Your task to perform on an android device: turn off javascript in the chrome app Image 0: 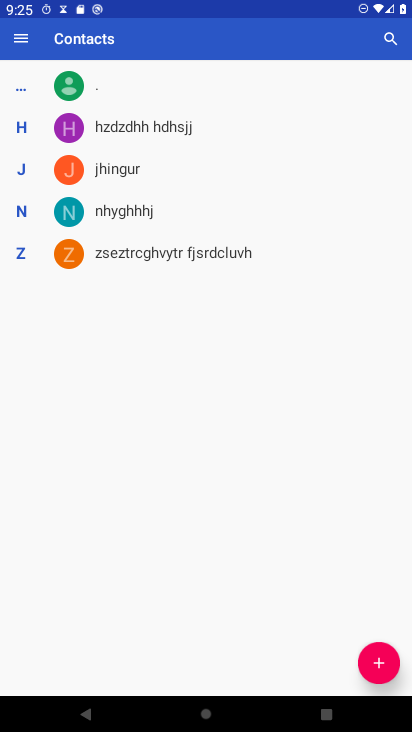
Step 0: press back button
Your task to perform on an android device: turn off javascript in the chrome app Image 1: 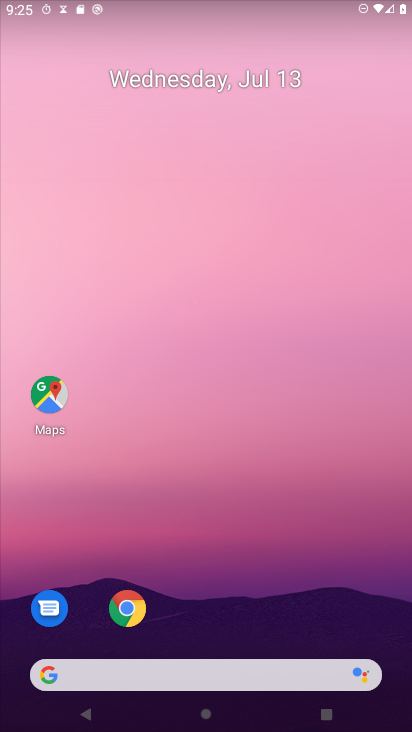
Step 1: drag from (238, 646) to (213, 262)
Your task to perform on an android device: turn off javascript in the chrome app Image 2: 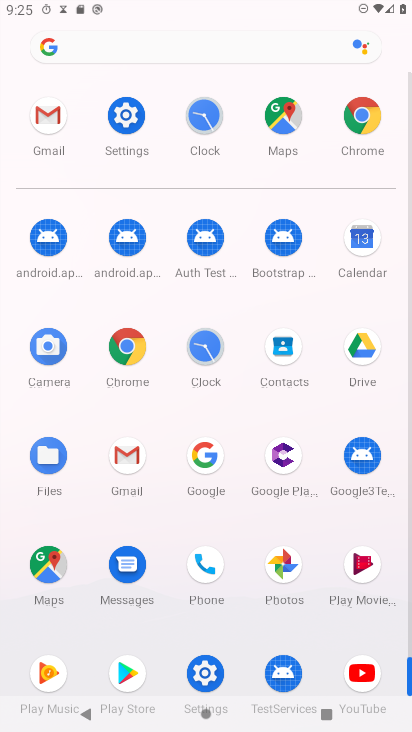
Step 2: click (364, 115)
Your task to perform on an android device: turn off javascript in the chrome app Image 3: 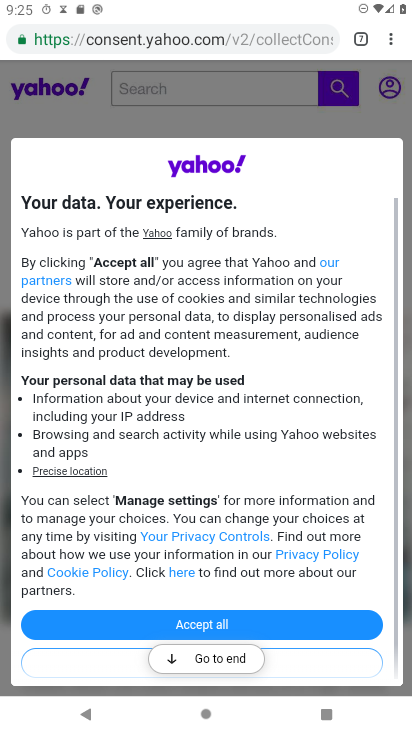
Step 3: drag from (386, 39) to (245, 476)
Your task to perform on an android device: turn off javascript in the chrome app Image 4: 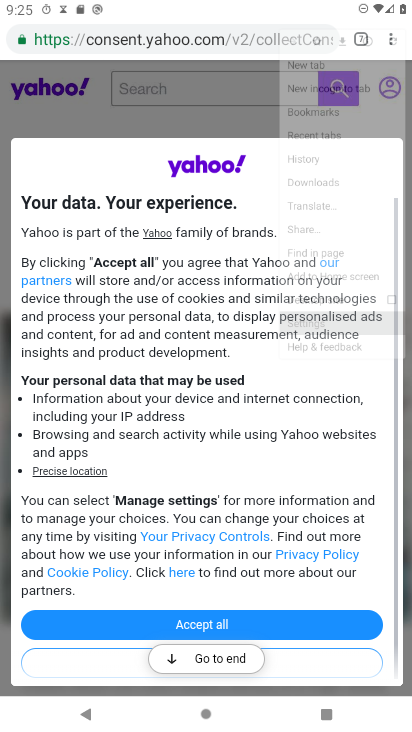
Step 4: click (246, 475)
Your task to perform on an android device: turn off javascript in the chrome app Image 5: 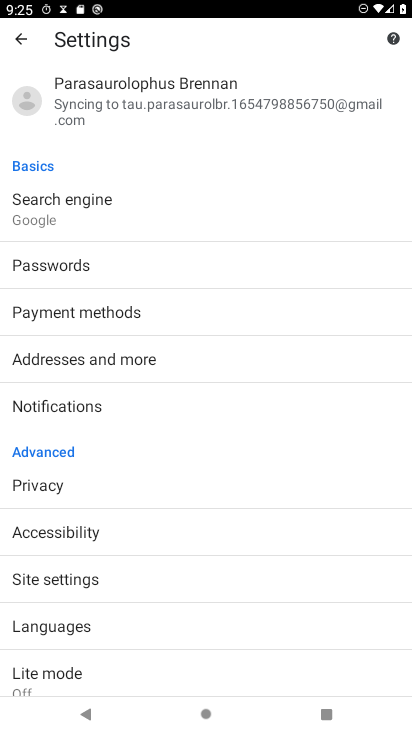
Step 5: click (137, 147)
Your task to perform on an android device: turn off javascript in the chrome app Image 6: 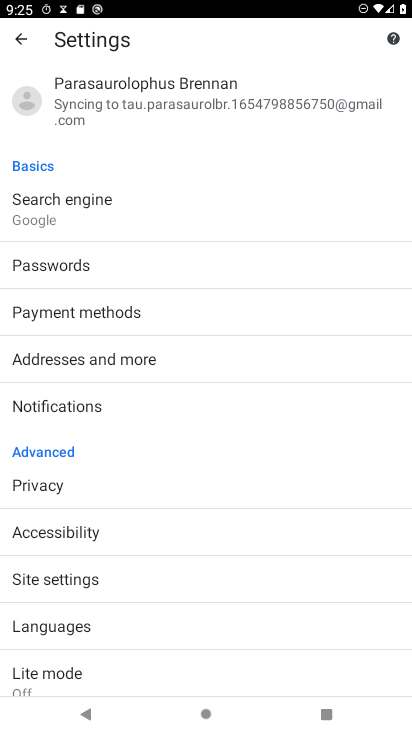
Step 6: drag from (203, 461) to (169, 206)
Your task to perform on an android device: turn off javascript in the chrome app Image 7: 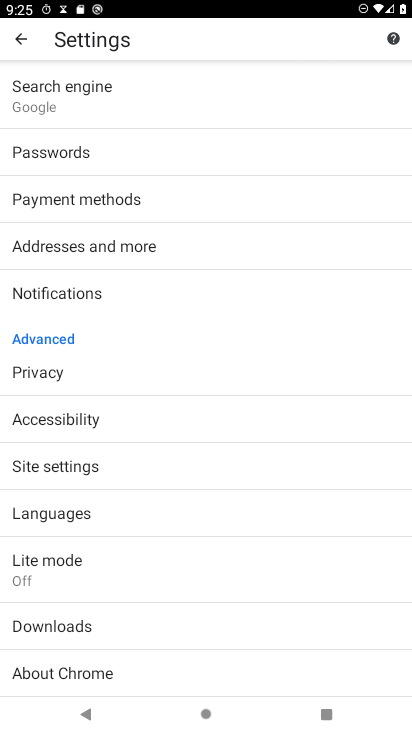
Step 7: click (52, 455)
Your task to perform on an android device: turn off javascript in the chrome app Image 8: 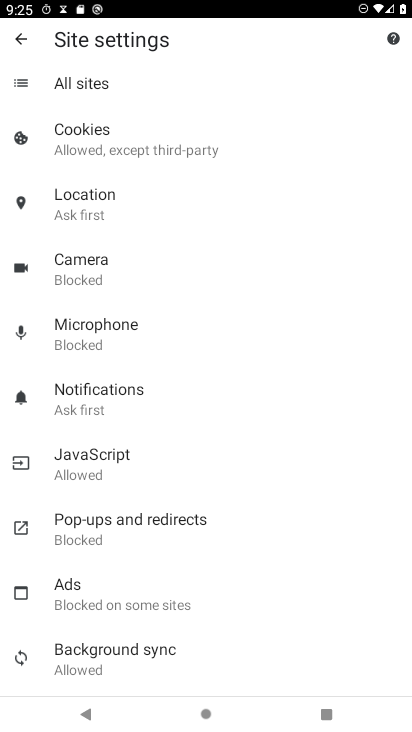
Step 8: click (75, 466)
Your task to perform on an android device: turn off javascript in the chrome app Image 9: 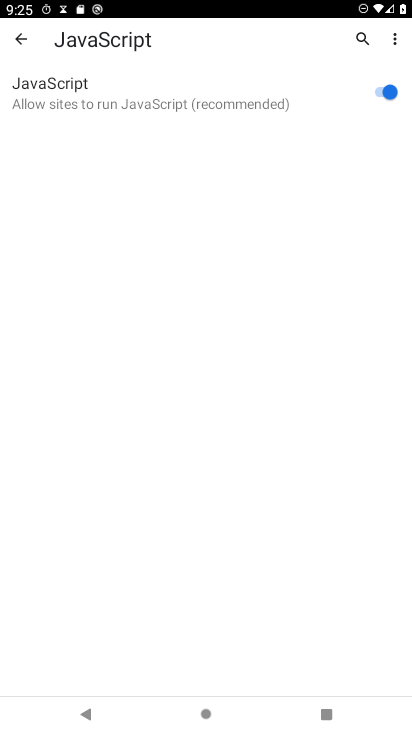
Step 9: click (391, 99)
Your task to perform on an android device: turn off javascript in the chrome app Image 10: 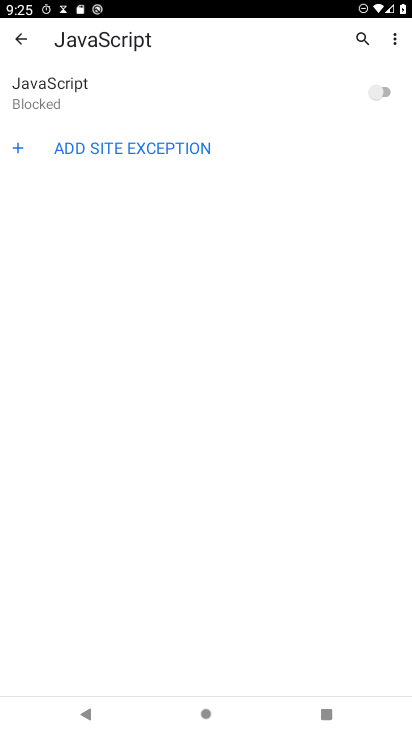
Step 10: task complete